Your task to perform on an android device: move an email to a new category in the gmail app Image 0: 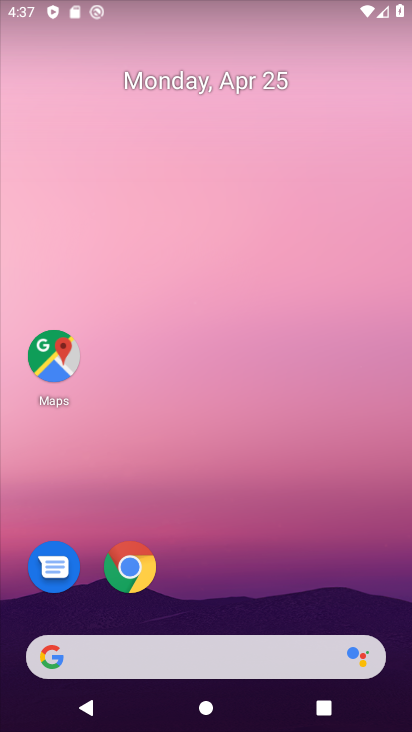
Step 0: drag from (215, 552) to (288, 81)
Your task to perform on an android device: move an email to a new category in the gmail app Image 1: 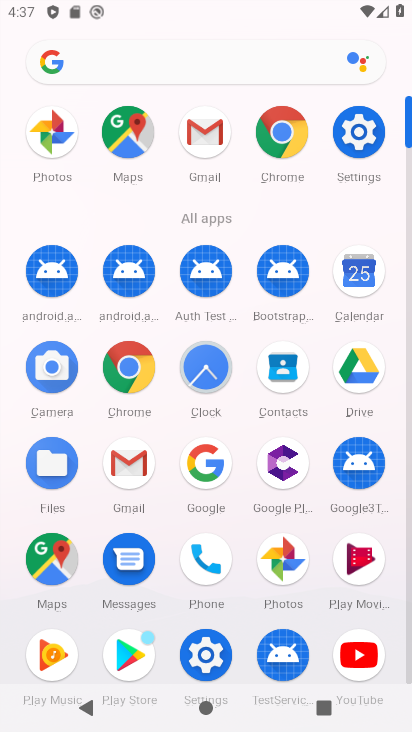
Step 1: click (197, 127)
Your task to perform on an android device: move an email to a new category in the gmail app Image 2: 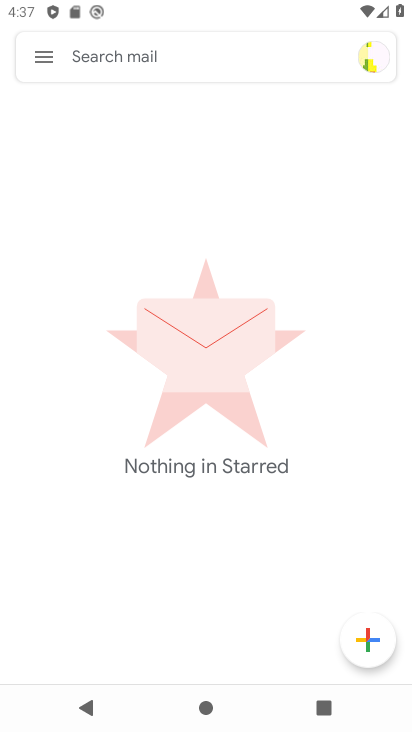
Step 2: click (28, 49)
Your task to perform on an android device: move an email to a new category in the gmail app Image 3: 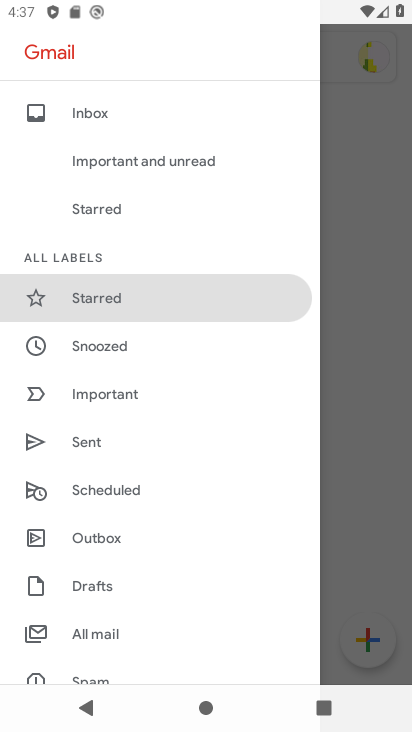
Step 3: click (98, 641)
Your task to perform on an android device: move an email to a new category in the gmail app Image 4: 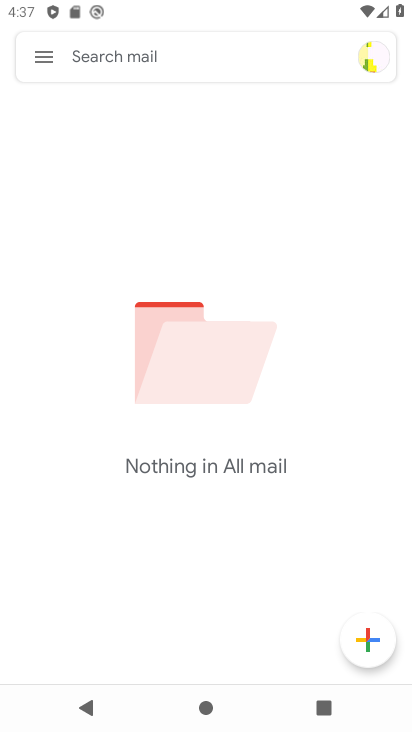
Step 4: task complete